Your task to perform on an android device: Open Google Maps and go to "Timeline" Image 0: 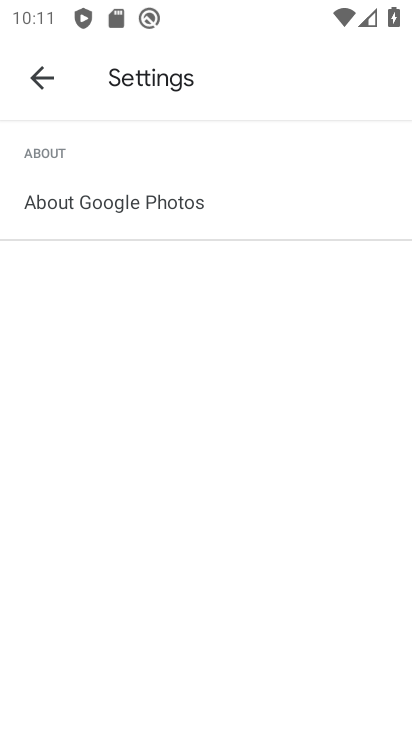
Step 0: press home button
Your task to perform on an android device: Open Google Maps and go to "Timeline" Image 1: 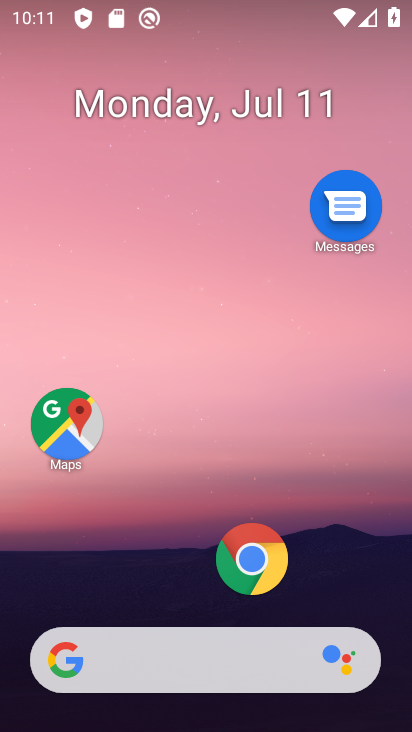
Step 1: drag from (357, 437) to (299, 129)
Your task to perform on an android device: Open Google Maps and go to "Timeline" Image 2: 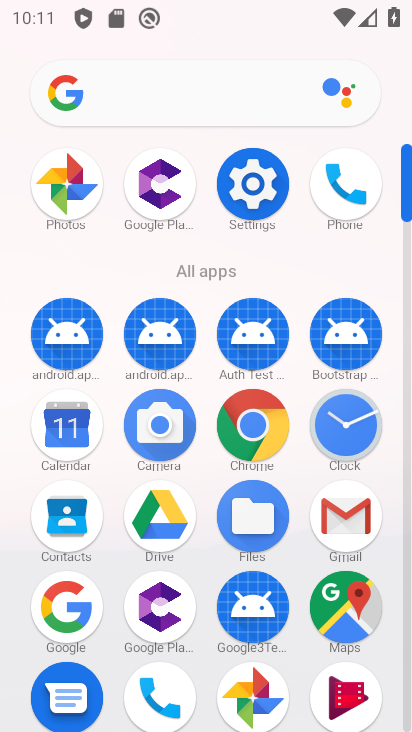
Step 2: click (350, 605)
Your task to perform on an android device: Open Google Maps and go to "Timeline" Image 3: 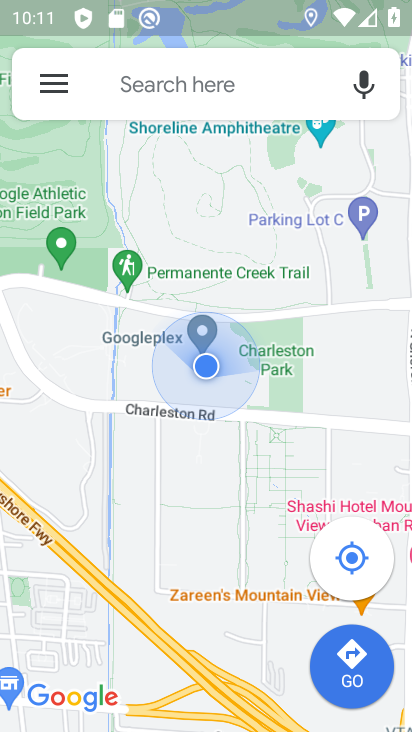
Step 3: click (56, 86)
Your task to perform on an android device: Open Google Maps and go to "Timeline" Image 4: 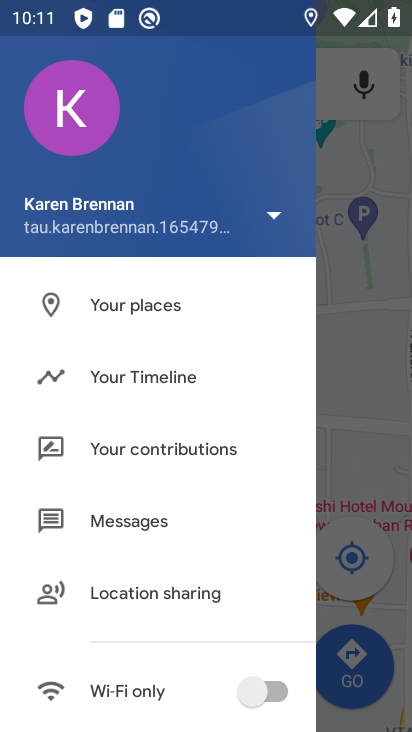
Step 4: click (189, 389)
Your task to perform on an android device: Open Google Maps and go to "Timeline" Image 5: 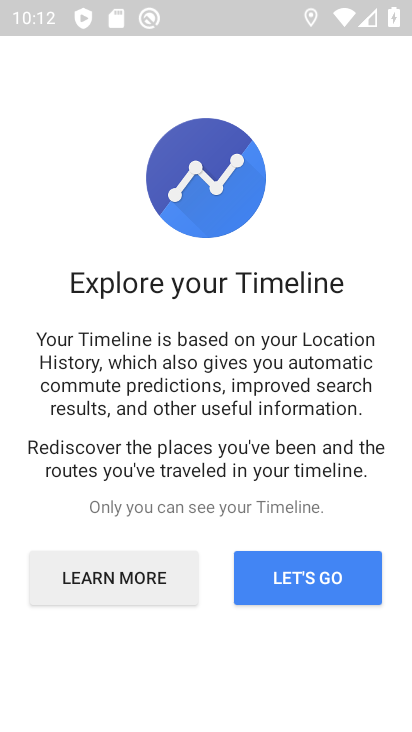
Step 5: task complete